Your task to perform on an android device: all mails in gmail Image 0: 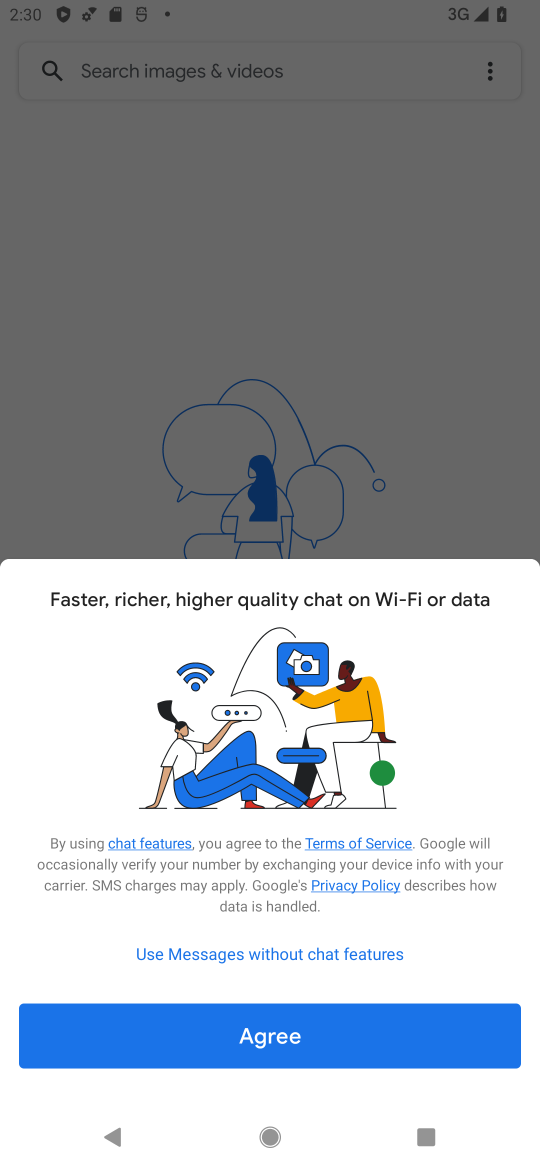
Step 0: click (184, 1048)
Your task to perform on an android device: all mails in gmail Image 1: 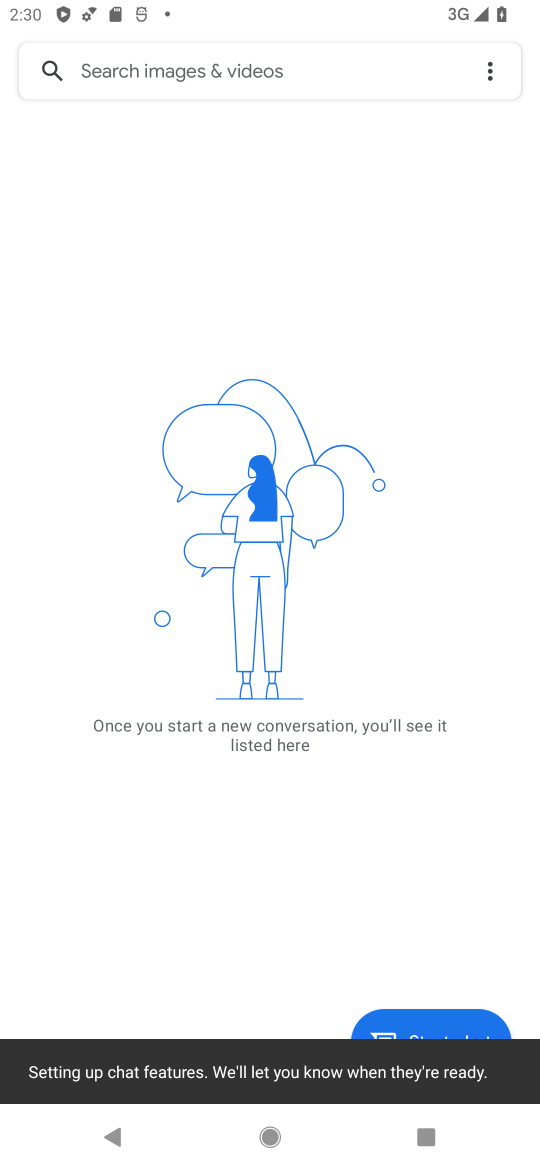
Step 1: press home button
Your task to perform on an android device: all mails in gmail Image 2: 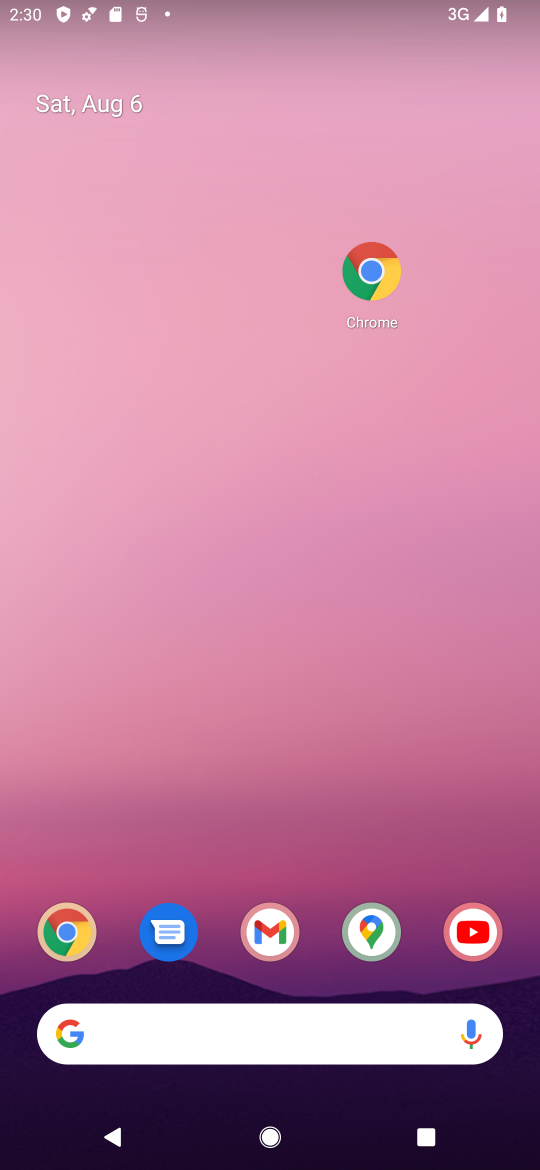
Step 2: click (275, 905)
Your task to perform on an android device: all mails in gmail Image 3: 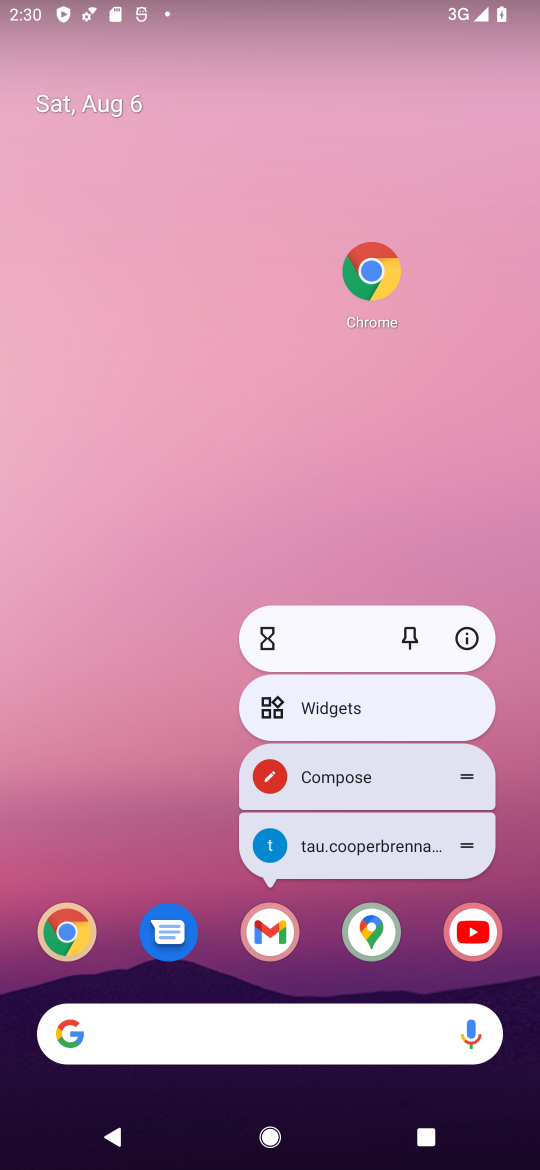
Step 3: click (269, 930)
Your task to perform on an android device: all mails in gmail Image 4: 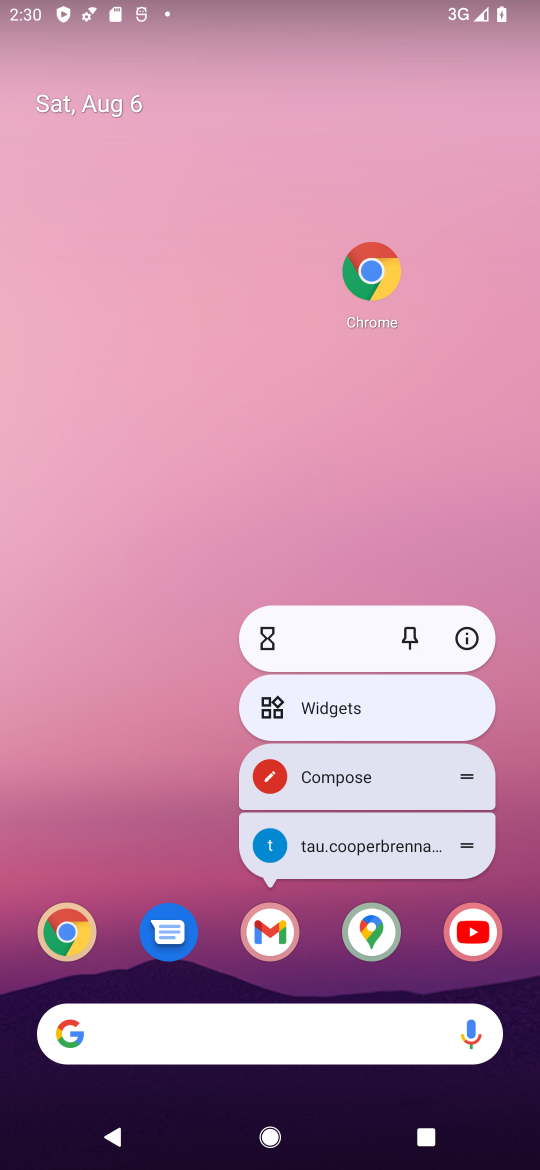
Step 4: click (185, 868)
Your task to perform on an android device: all mails in gmail Image 5: 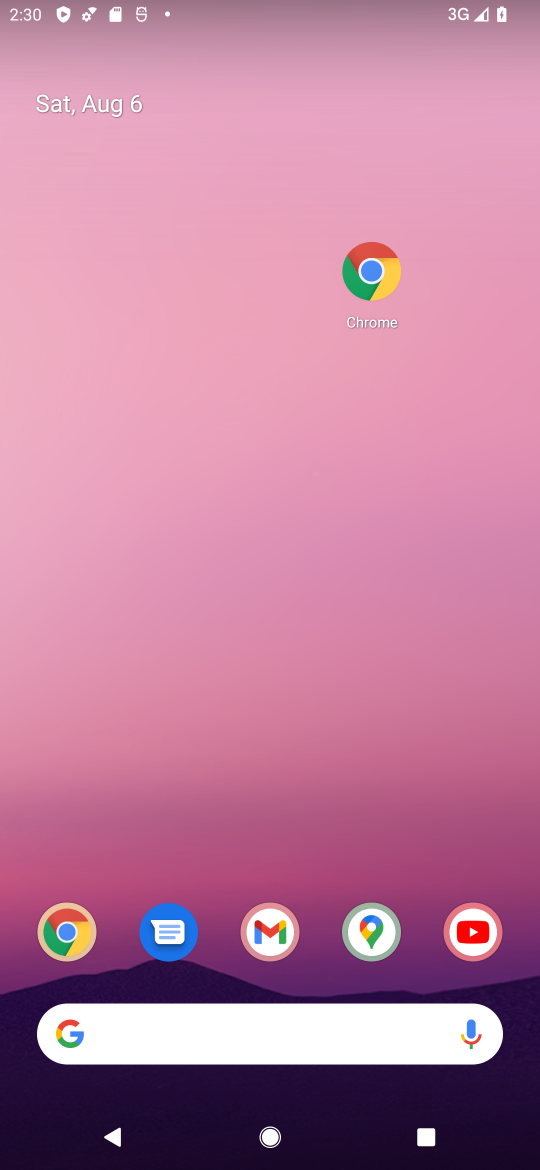
Step 5: click (271, 918)
Your task to perform on an android device: all mails in gmail Image 6: 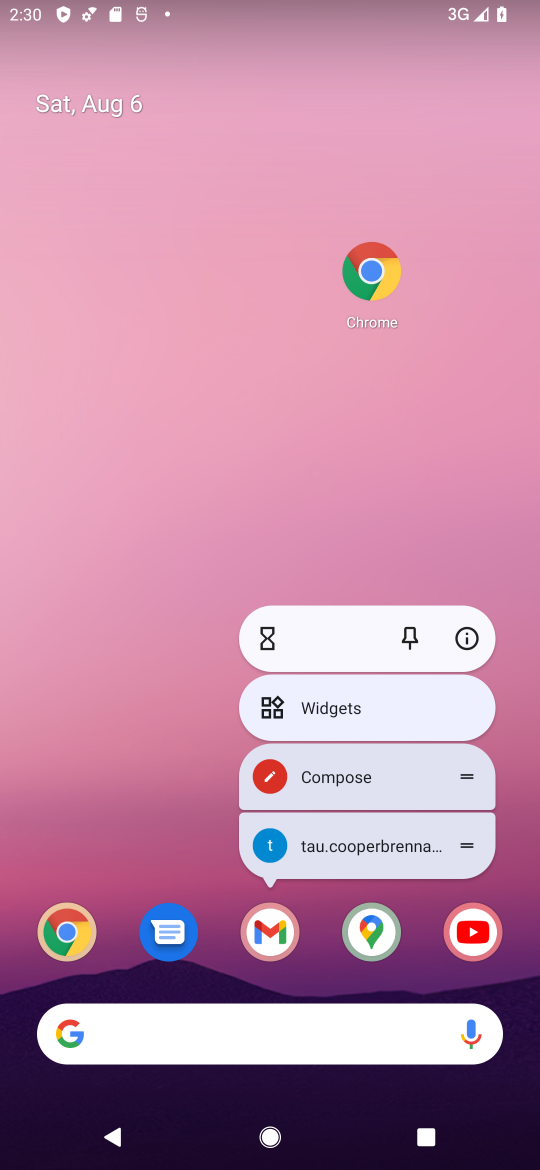
Step 6: click (329, 973)
Your task to perform on an android device: all mails in gmail Image 7: 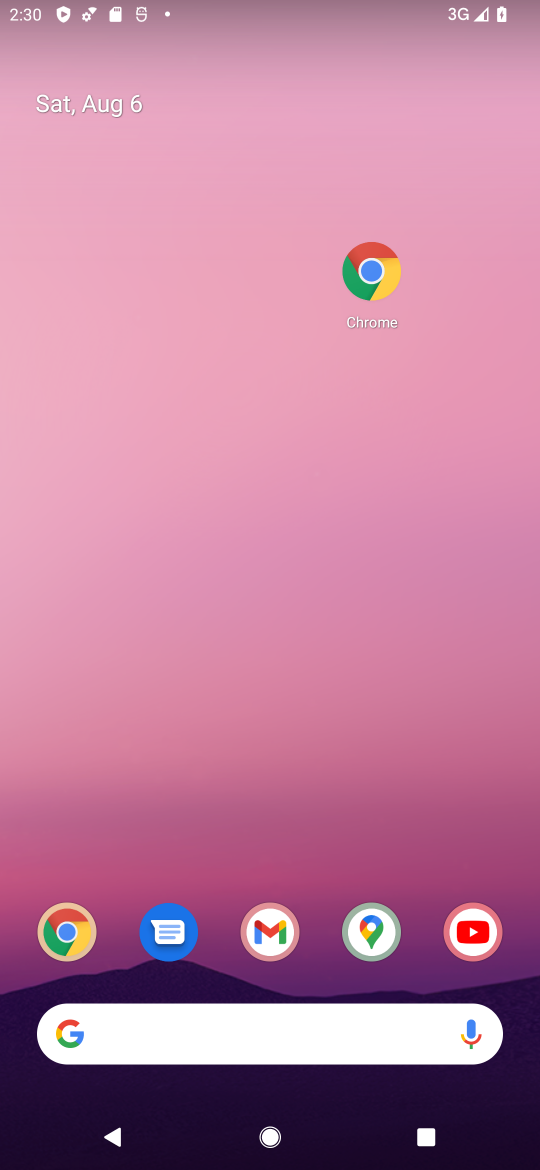
Step 7: drag from (329, 973) to (441, 0)
Your task to perform on an android device: all mails in gmail Image 8: 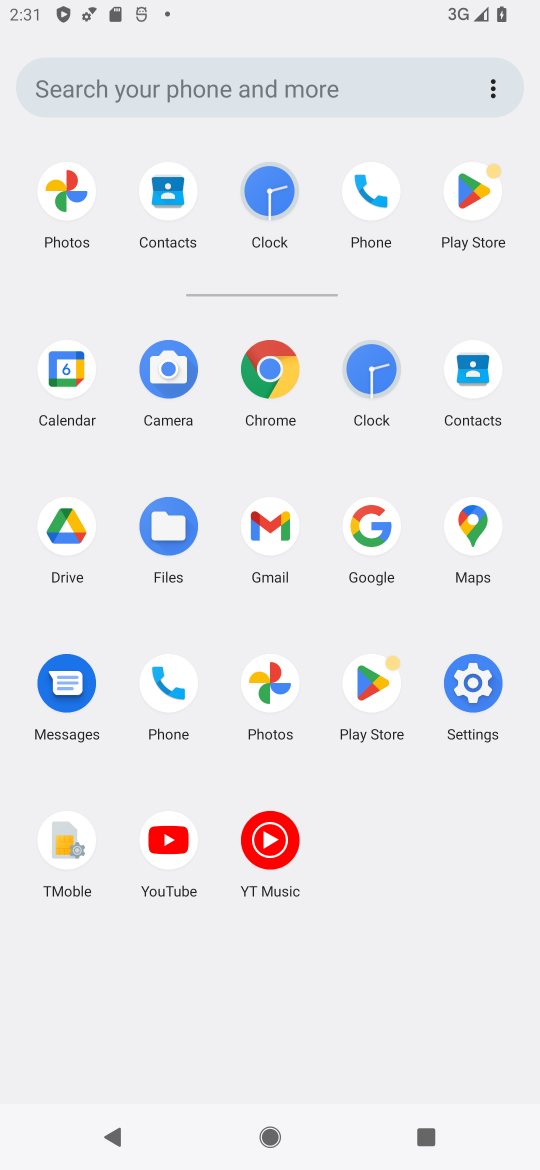
Step 8: click (266, 499)
Your task to perform on an android device: all mails in gmail Image 9: 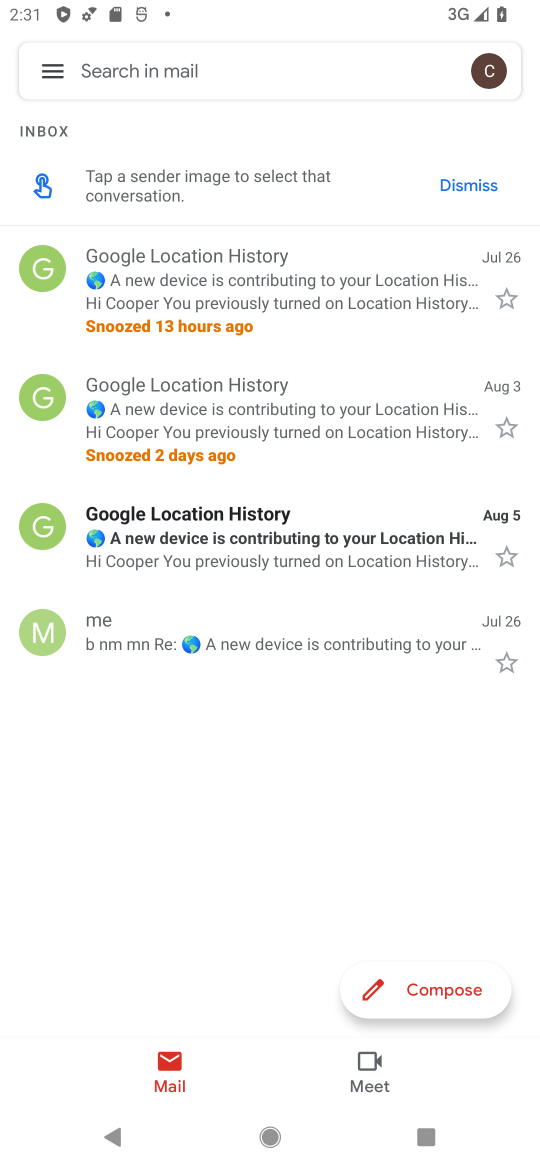
Step 9: click (43, 60)
Your task to perform on an android device: all mails in gmail Image 10: 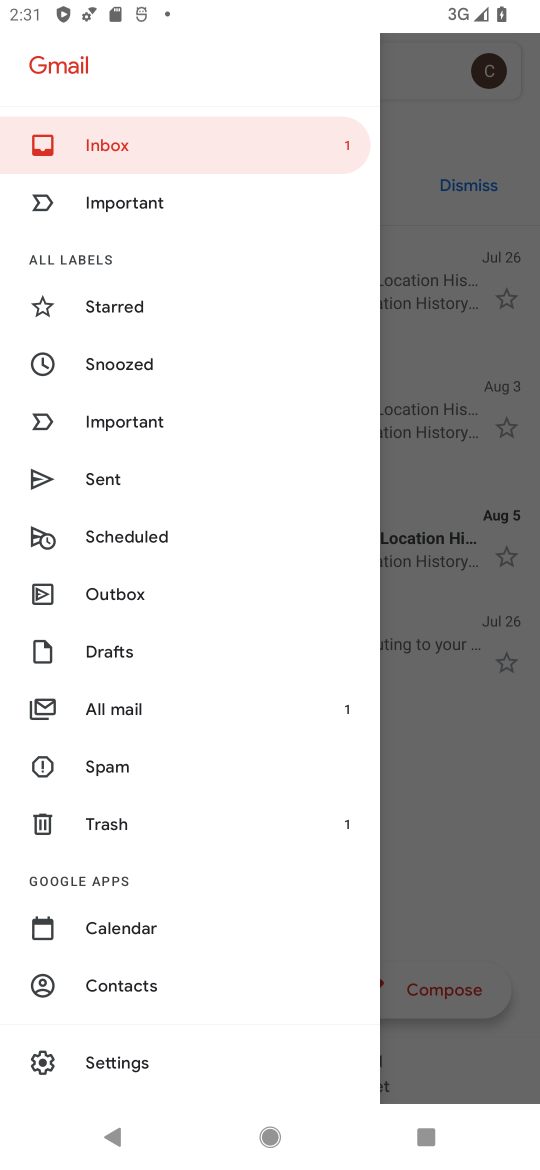
Step 10: click (87, 684)
Your task to perform on an android device: all mails in gmail Image 11: 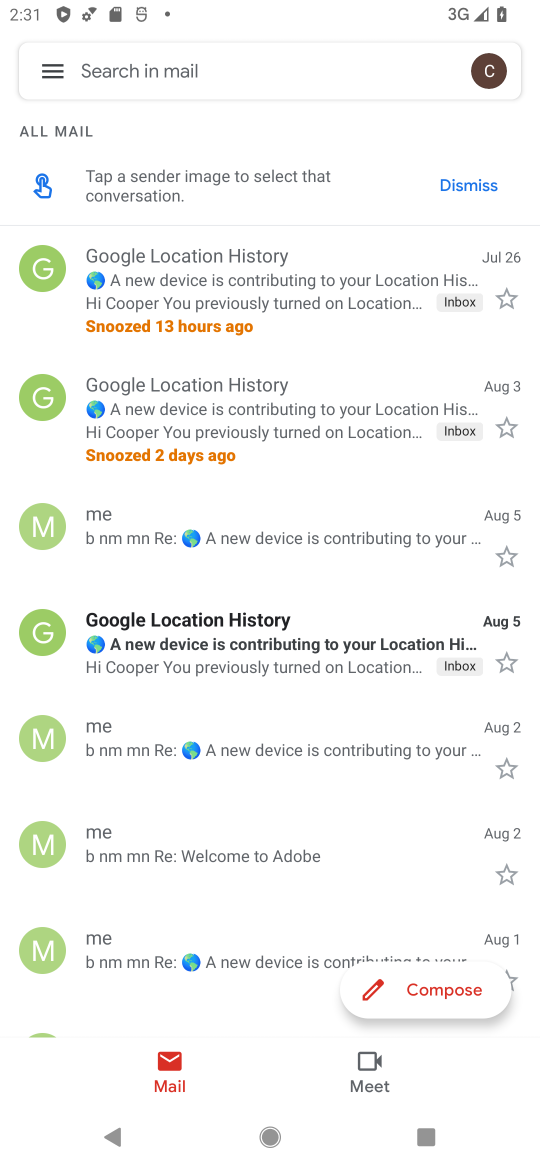
Step 11: task complete